Your task to perform on an android device: Open maps Image 0: 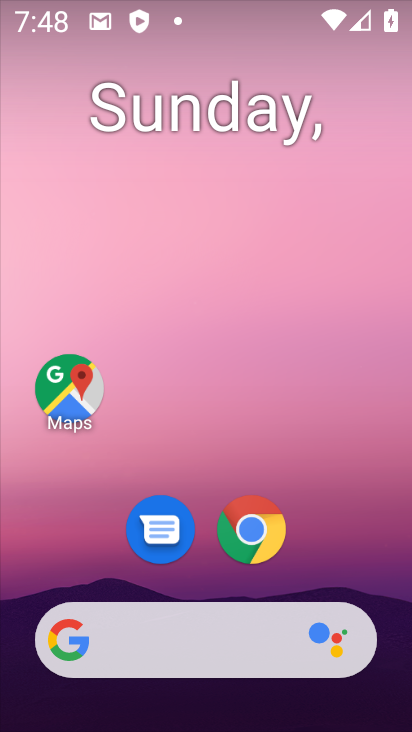
Step 0: drag from (193, 582) to (207, 125)
Your task to perform on an android device: Open maps Image 1: 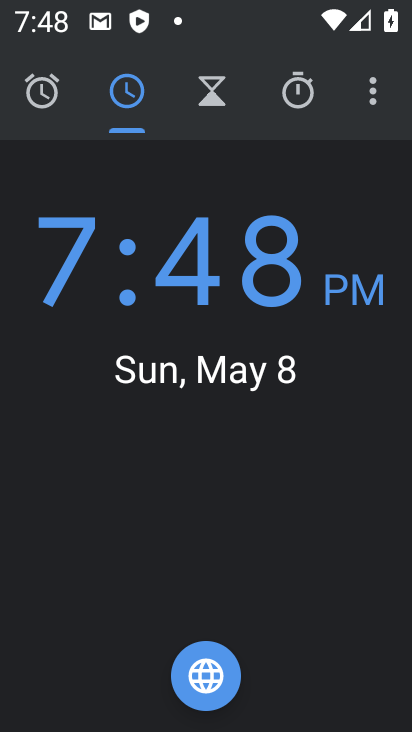
Step 1: press home button
Your task to perform on an android device: Open maps Image 2: 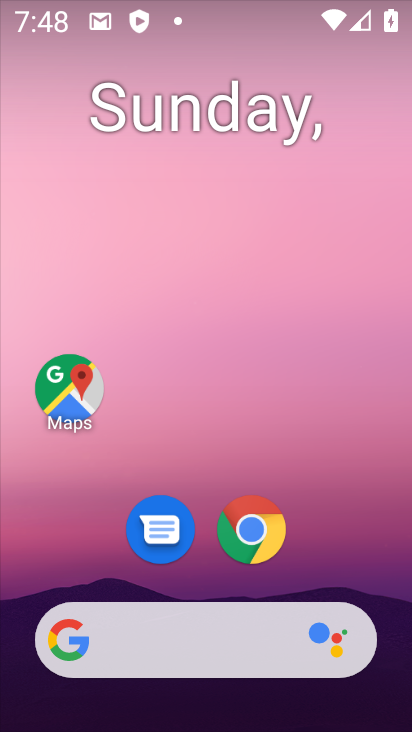
Step 2: click (71, 404)
Your task to perform on an android device: Open maps Image 3: 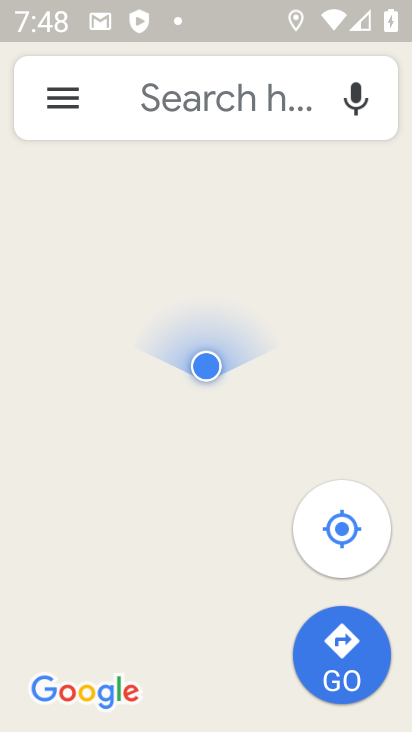
Step 3: task complete